Your task to perform on an android device: open wifi settings Image 0: 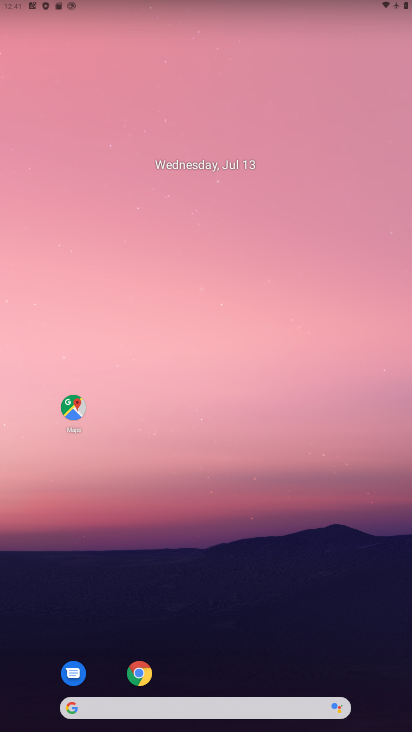
Step 0: drag from (247, 677) to (247, 108)
Your task to perform on an android device: open wifi settings Image 1: 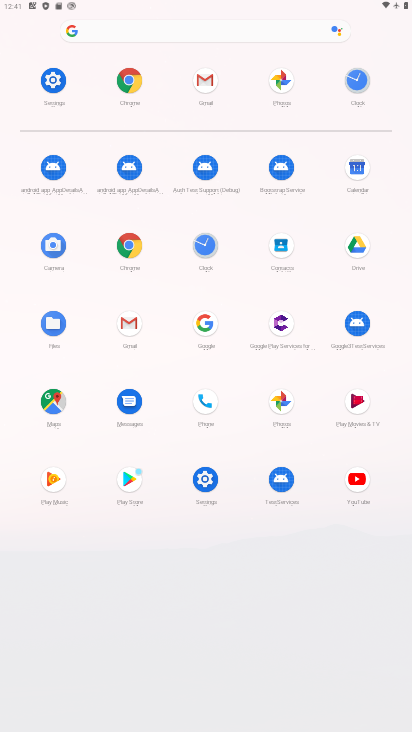
Step 1: click (53, 84)
Your task to perform on an android device: open wifi settings Image 2: 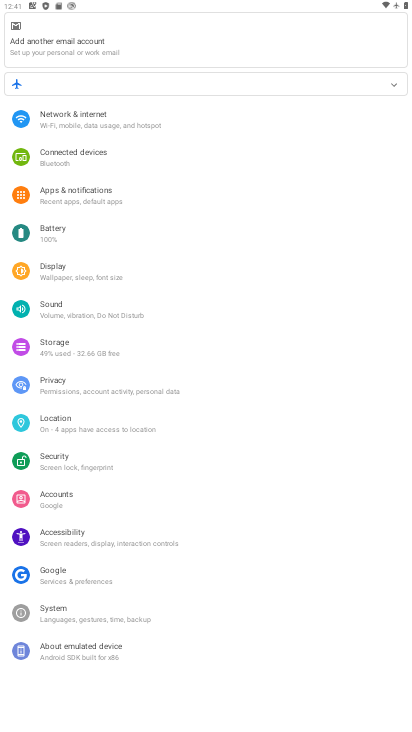
Step 2: click (78, 122)
Your task to perform on an android device: open wifi settings Image 3: 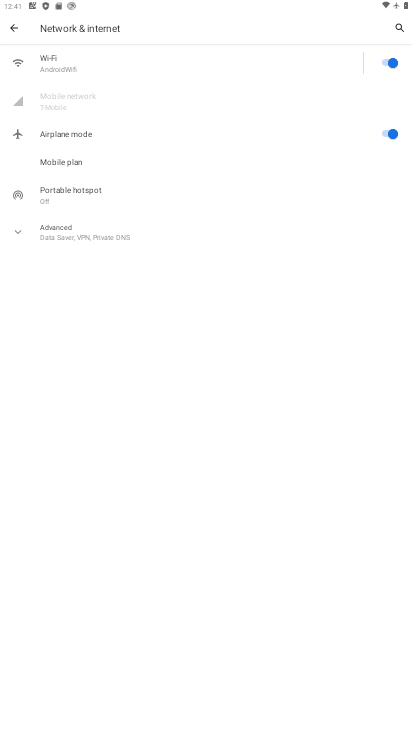
Step 3: click (363, 131)
Your task to perform on an android device: open wifi settings Image 4: 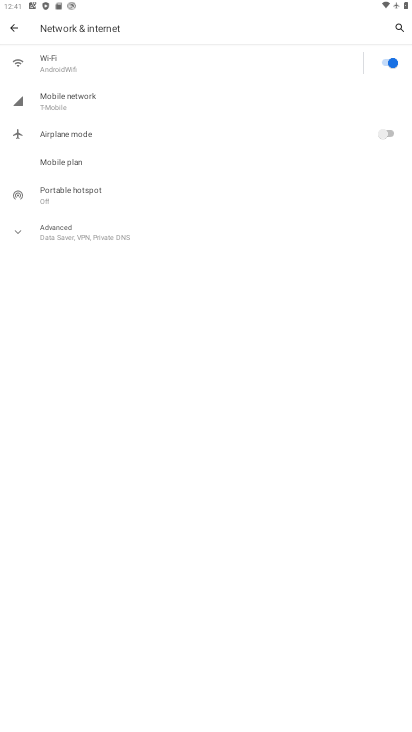
Step 4: click (128, 67)
Your task to perform on an android device: open wifi settings Image 5: 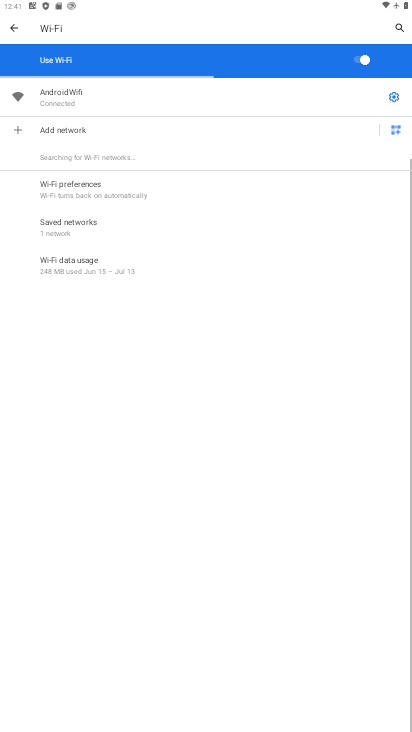
Step 5: task complete